Your task to perform on an android device: What time is it in San Francisco? Image 0: 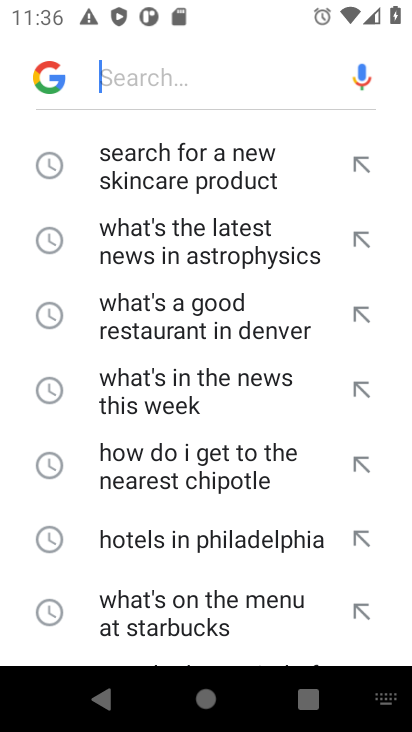
Step 0: press home button
Your task to perform on an android device: What time is it in San Francisco? Image 1: 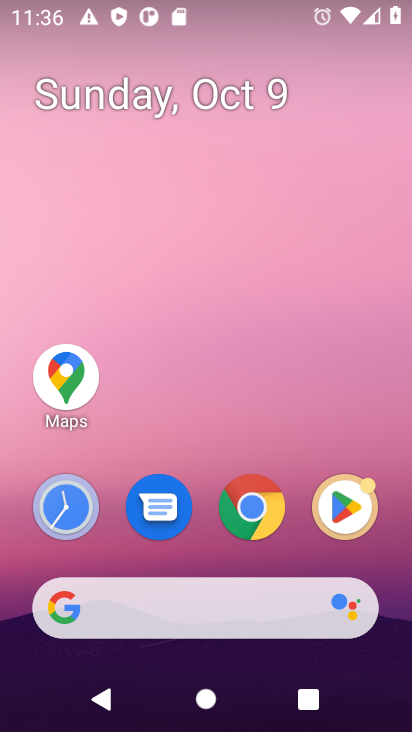
Step 1: click (219, 607)
Your task to perform on an android device: What time is it in San Francisco? Image 2: 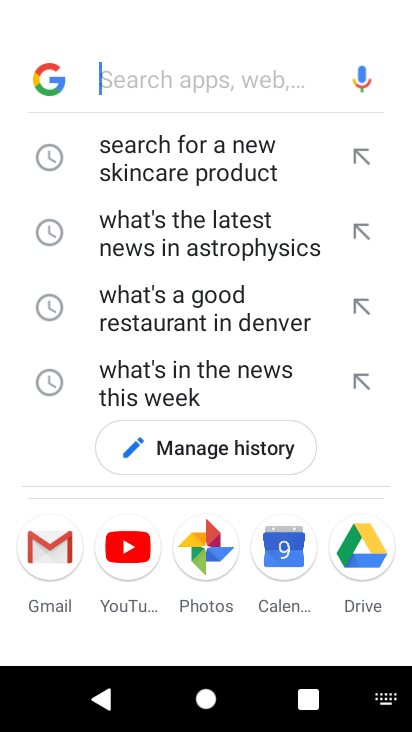
Step 2: type "What time is it in San Francisco?"
Your task to perform on an android device: What time is it in San Francisco? Image 3: 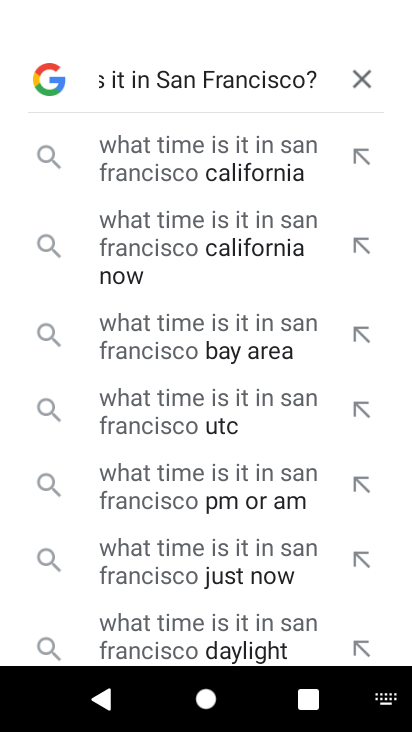
Step 3: press enter
Your task to perform on an android device: What time is it in San Francisco? Image 4: 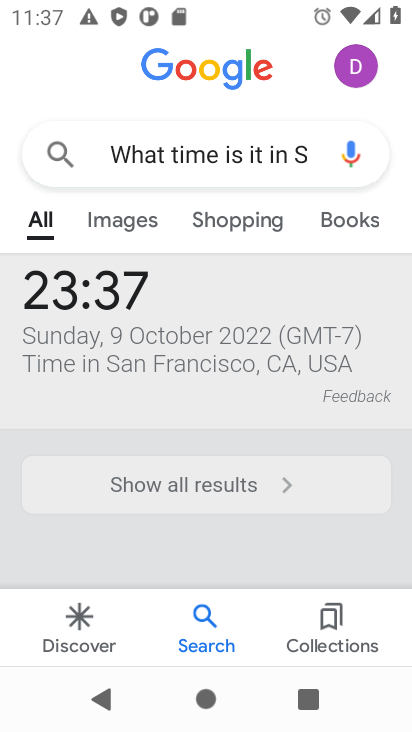
Step 4: task complete